Your task to perform on an android device: Open ESPN.com Image 0: 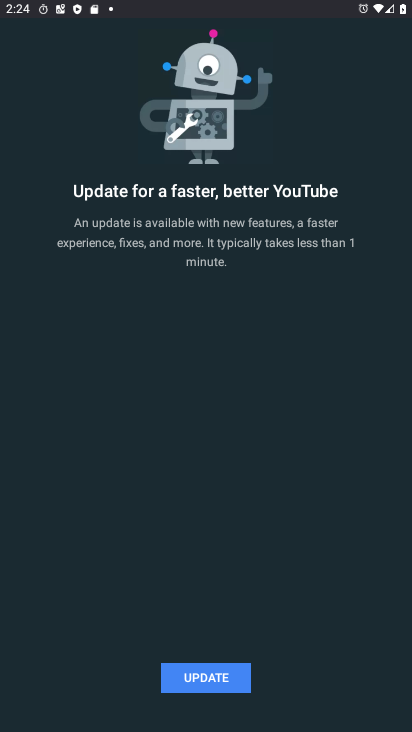
Step 0: press home button
Your task to perform on an android device: Open ESPN.com Image 1: 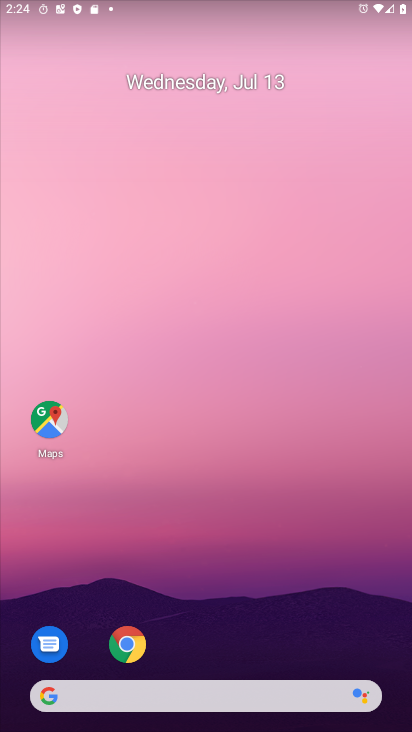
Step 1: click (125, 646)
Your task to perform on an android device: Open ESPN.com Image 2: 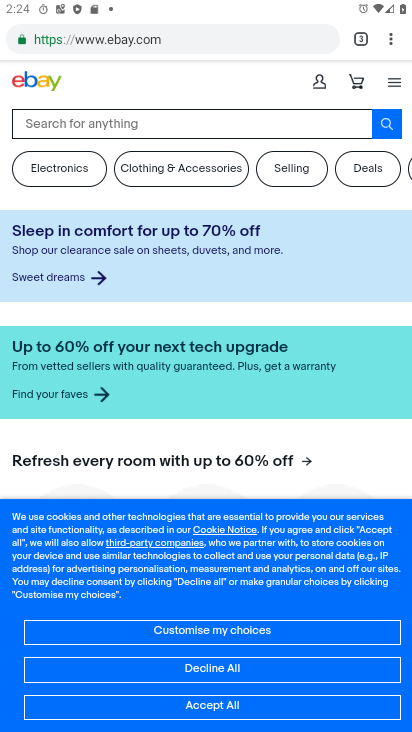
Step 2: click (362, 37)
Your task to perform on an android device: Open ESPN.com Image 3: 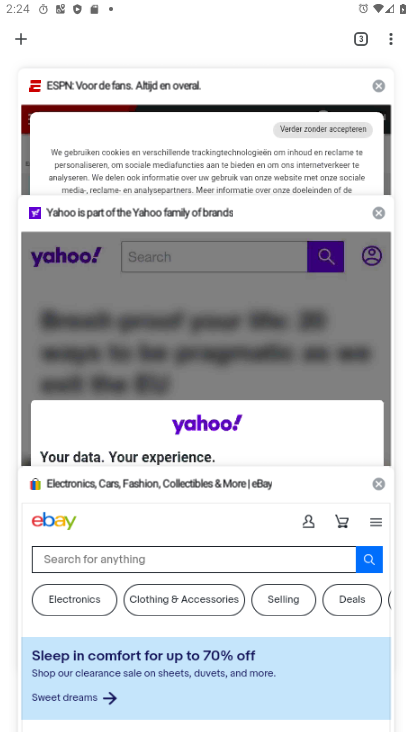
Step 3: click (120, 117)
Your task to perform on an android device: Open ESPN.com Image 4: 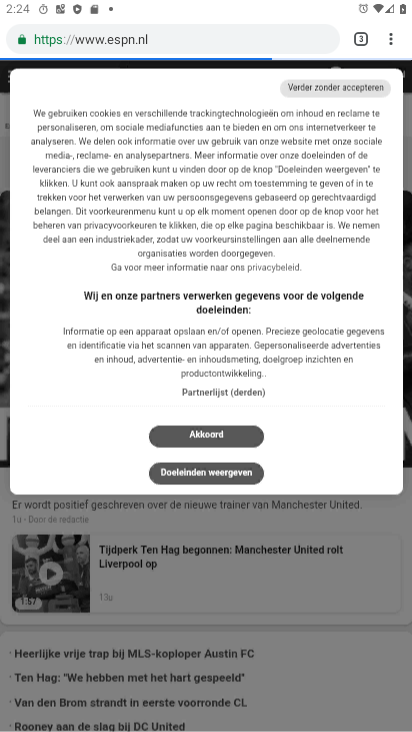
Step 4: task complete